Your task to perform on an android device: Turn off the flashlight Image 0: 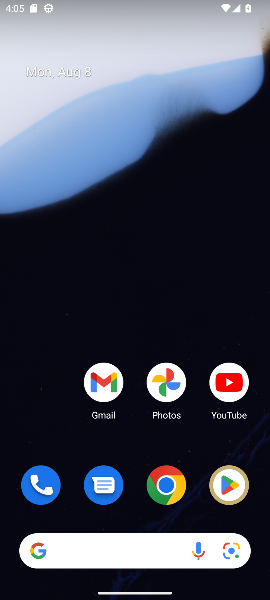
Step 0: drag from (127, 556) to (62, 224)
Your task to perform on an android device: Turn off the flashlight Image 1: 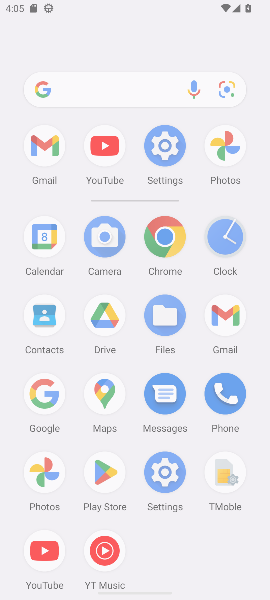
Step 1: task complete